Your task to perform on an android device: open wifi settings Image 0: 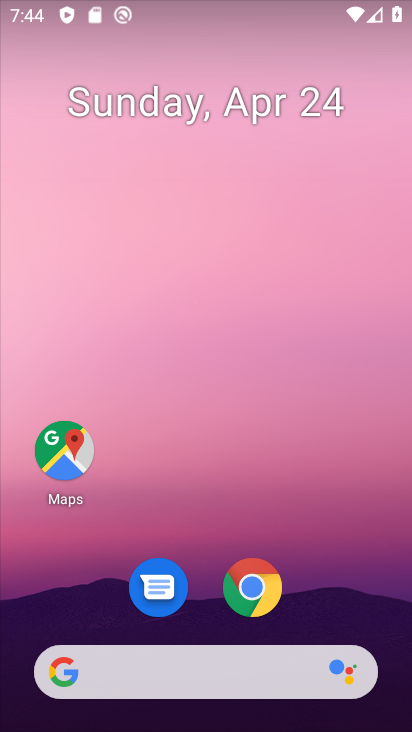
Step 0: drag from (324, 499) to (321, 153)
Your task to perform on an android device: open wifi settings Image 1: 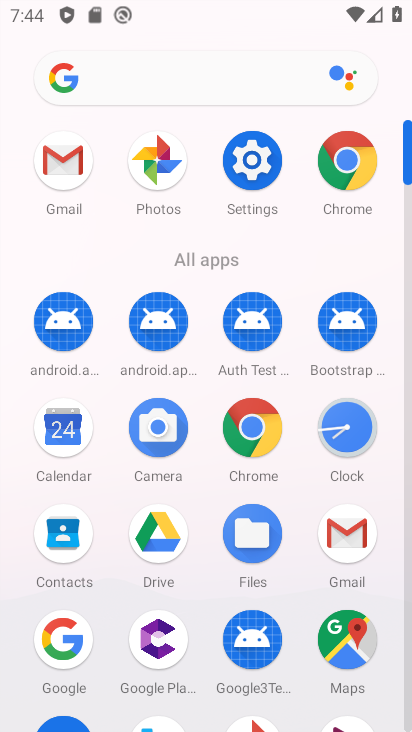
Step 1: click (255, 158)
Your task to perform on an android device: open wifi settings Image 2: 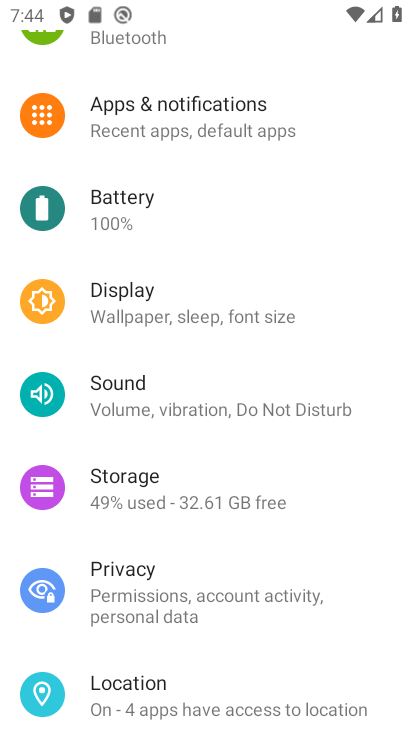
Step 2: drag from (228, 219) to (251, 628)
Your task to perform on an android device: open wifi settings Image 3: 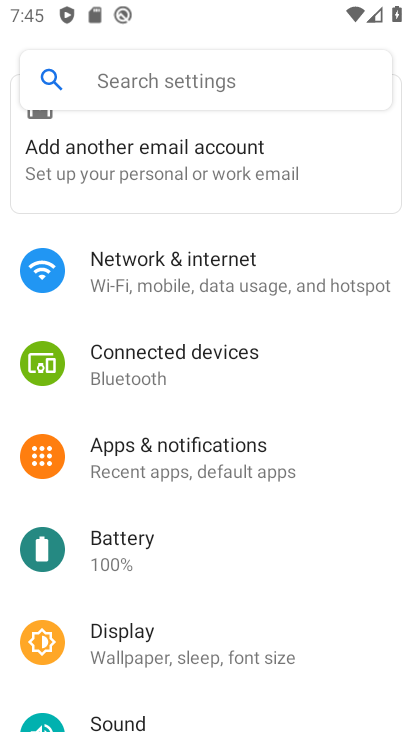
Step 3: click (168, 267)
Your task to perform on an android device: open wifi settings Image 4: 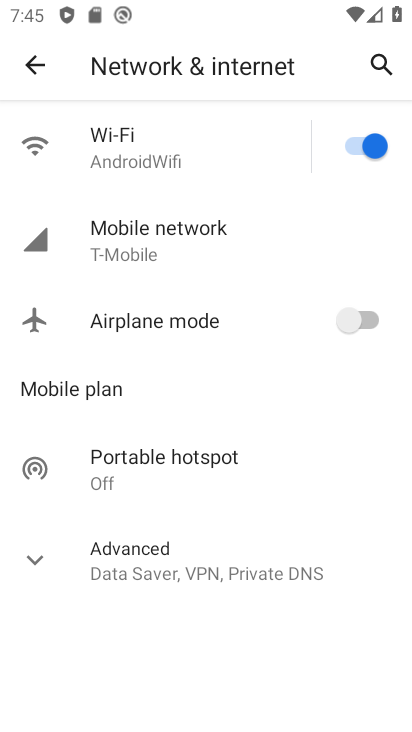
Step 4: click (224, 135)
Your task to perform on an android device: open wifi settings Image 5: 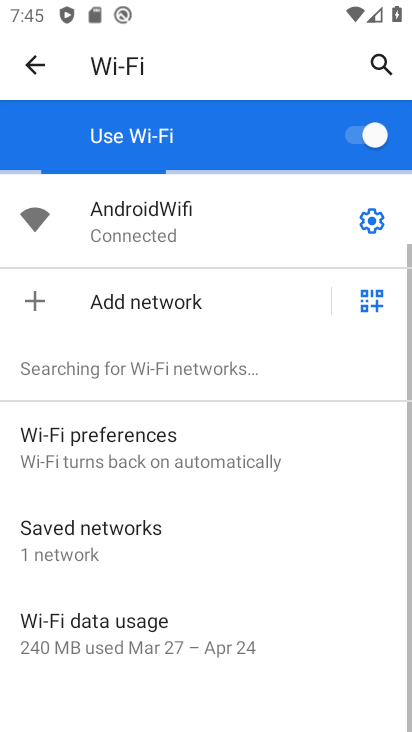
Step 5: click (359, 219)
Your task to perform on an android device: open wifi settings Image 6: 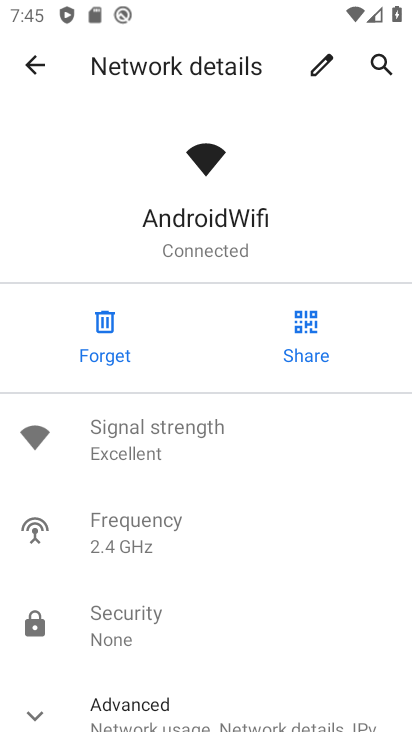
Step 6: task complete